Your task to perform on an android device: toggle priority inbox in the gmail app Image 0: 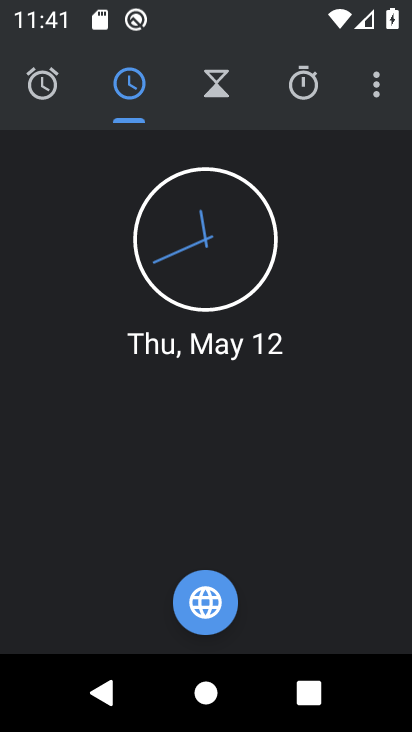
Step 0: press home button
Your task to perform on an android device: toggle priority inbox in the gmail app Image 1: 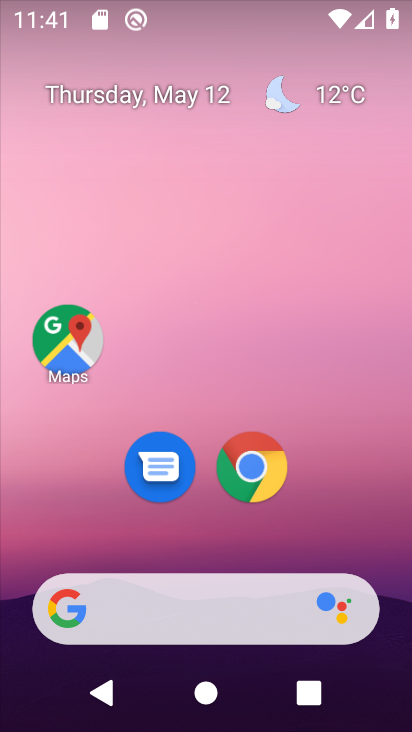
Step 1: drag from (305, 515) to (221, 81)
Your task to perform on an android device: toggle priority inbox in the gmail app Image 2: 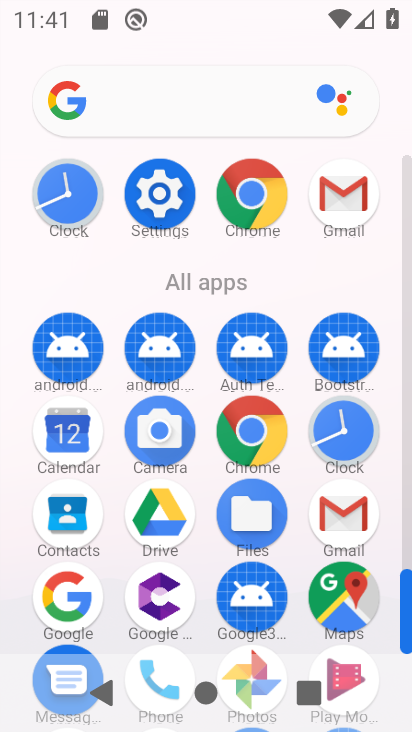
Step 2: click (343, 521)
Your task to perform on an android device: toggle priority inbox in the gmail app Image 3: 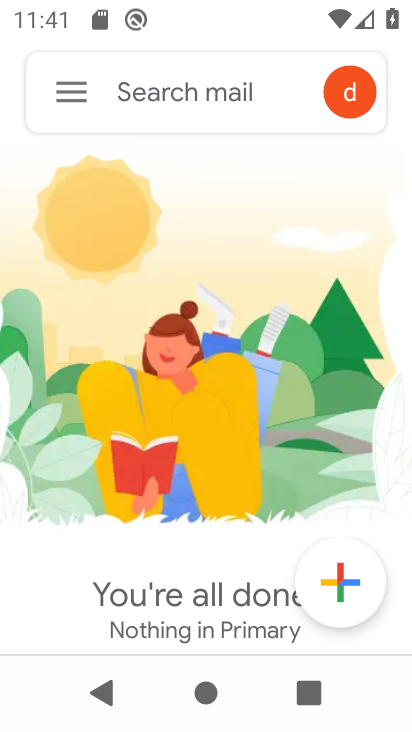
Step 3: click (58, 98)
Your task to perform on an android device: toggle priority inbox in the gmail app Image 4: 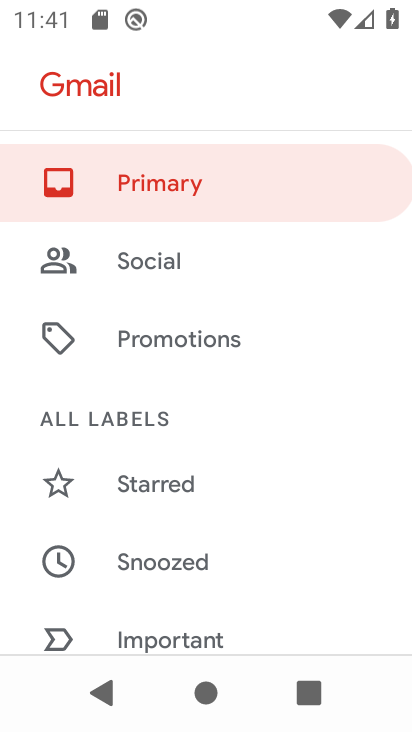
Step 4: drag from (277, 556) to (226, 159)
Your task to perform on an android device: toggle priority inbox in the gmail app Image 5: 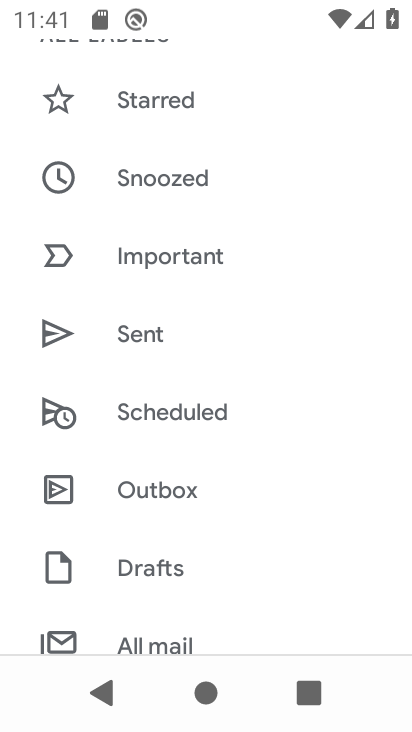
Step 5: drag from (230, 589) to (169, 221)
Your task to perform on an android device: toggle priority inbox in the gmail app Image 6: 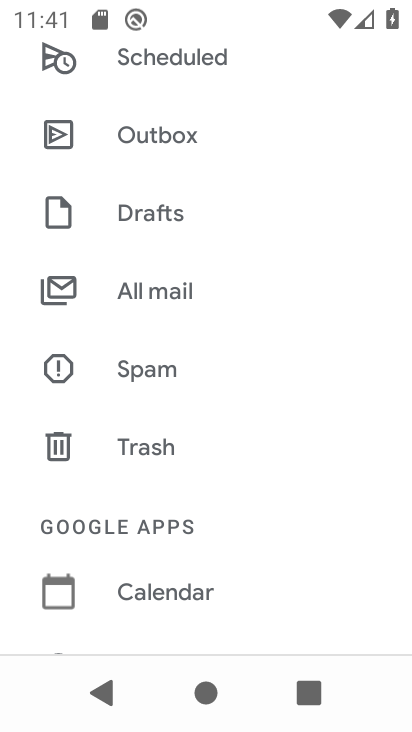
Step 6: drag from (207, 563) to (184, 206)
Your task to perform on an android device: toggle priority inbox in the gmail app Image 7: 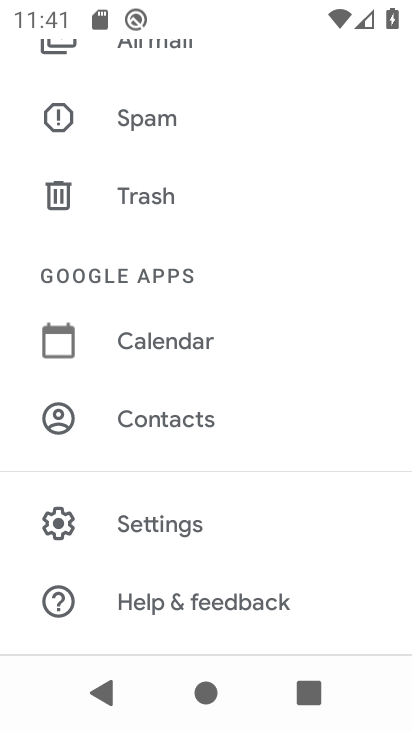
Step 7: click (170, 526)
Your task to perform on an android device: toggle priority inbox in the gmail app Image 8: 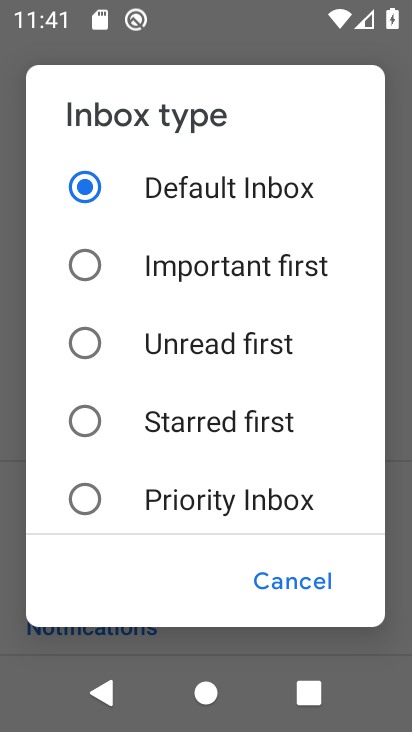
Step 8: click (199, 500)
Your task to perform on an android device: toggle priority inbox in the gmail app Image 9: 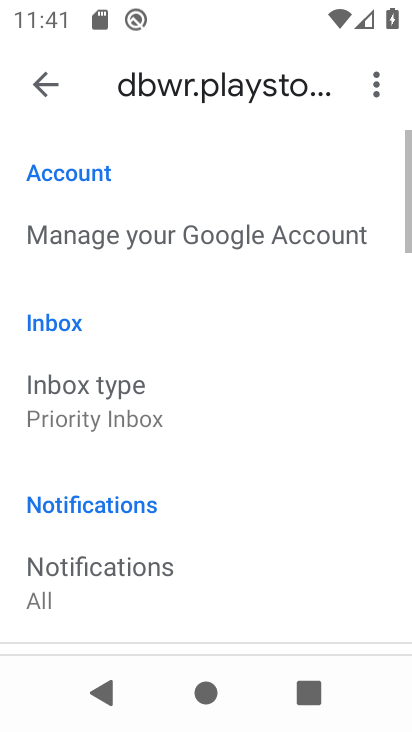
Step 9: task complete